Your task to perform on an android device: allow notifications from all sites in the chrome app Image 0: 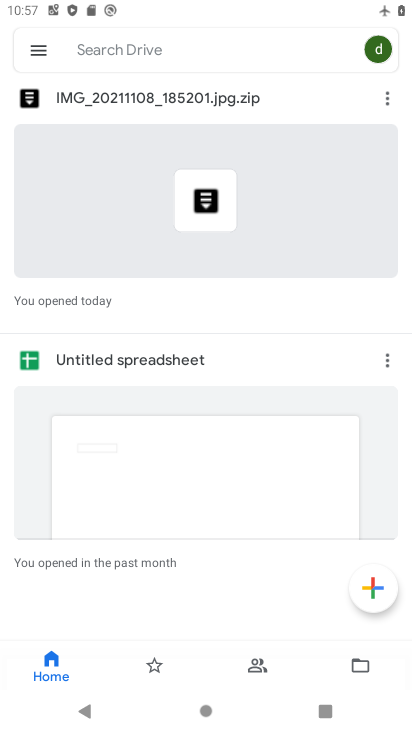
Step 0: press home button
Your task to perform on an android device: allow notifications from all sites in the chrome app Image 1: 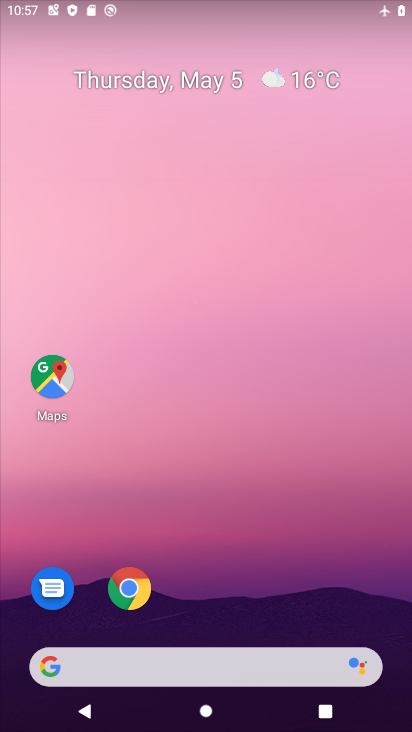
Step 1: drag from (276, 9) to (247, 384)
Your task to perform on an android device: allow notifications from all sites in the chrome app Image 2: 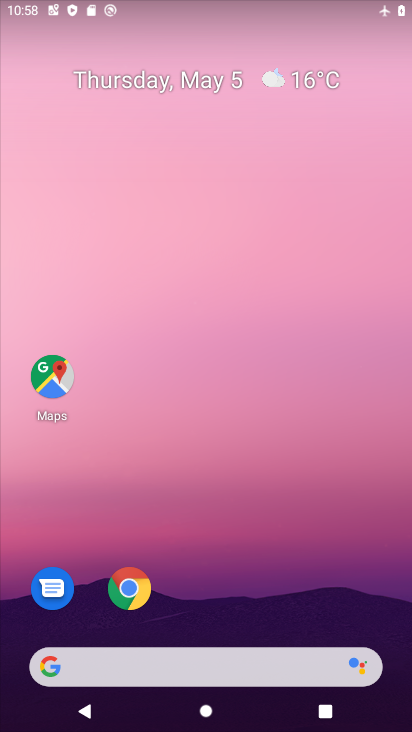
Step 2: click (136, 587)
Your task to perform on an android device: allow notifications from all sites in the chrome app Image 3: 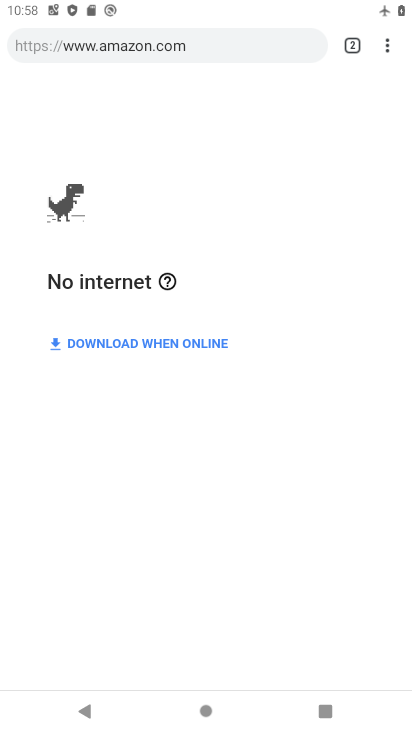
Step 3: drag from (385, 46) to (254, 497)
Your task to perform on an android device: allow notifications from all sites in the chrome app Image 4: 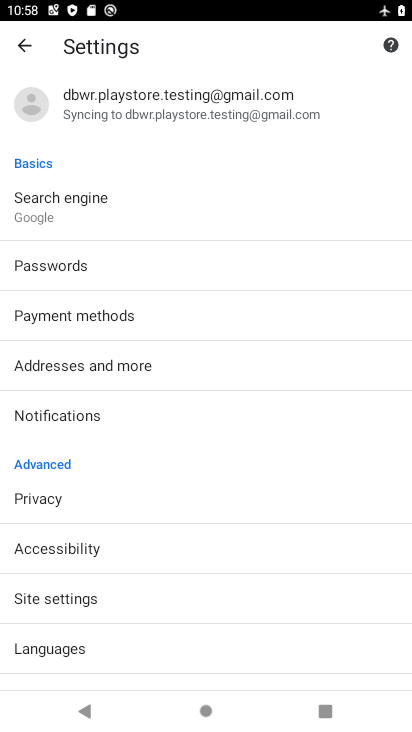
Step 4: click (258, 604)
Your task to perform on an android device: allow notifications from all sites in the chrome app Image 5: 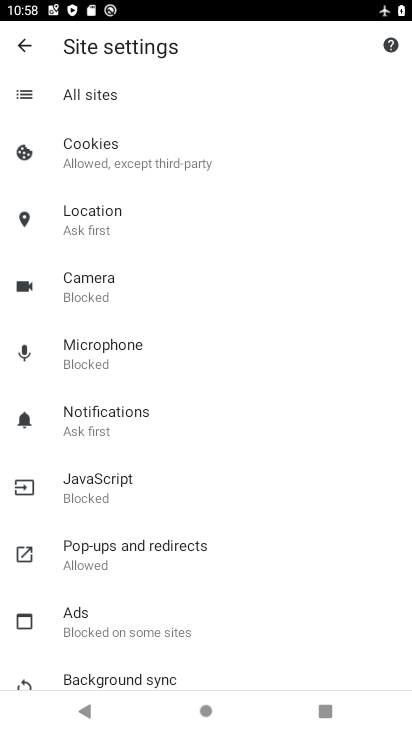
Step 5: click (210, 411)
Your task to perform on an android device: allow notifications from all sites in the chrome app Image 6: 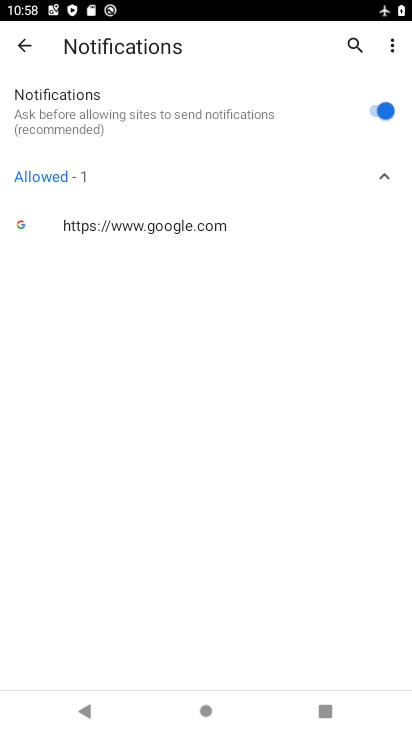
Step 6: task complete